Your task to perform on an android device: turn on the 12-hour format for clock Image 0: 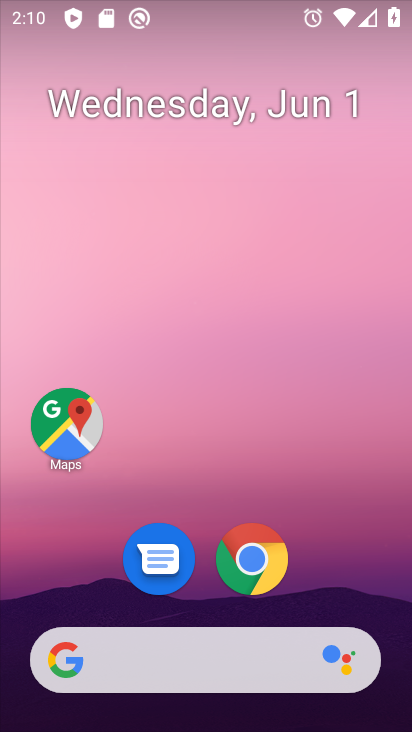
Step 0: press home button
Your task to perform on an android device: turn on the 12-hour format for clock Image 1: 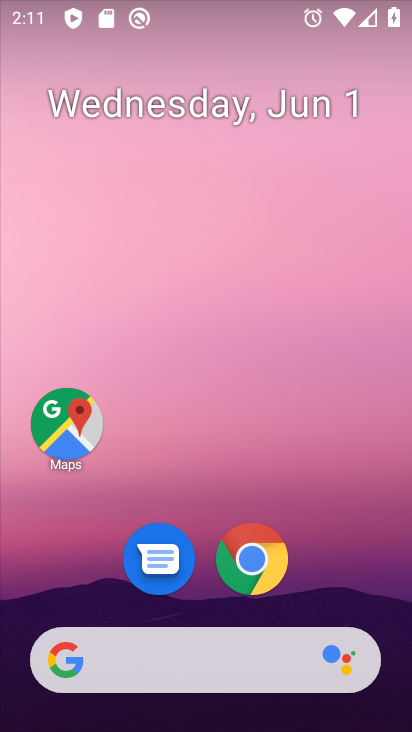
Step 1: drag from (332, 597) to (319, 232)
Your task to perform on an android device: turn on the 12-hour format for clock Image 2: 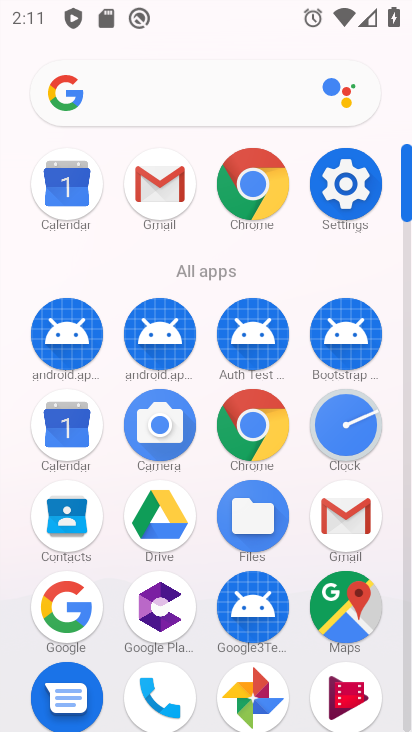
Step 2: click (349, 184)
Your task to perform on an android device: turn on the 12-hour format for clock Image 3: 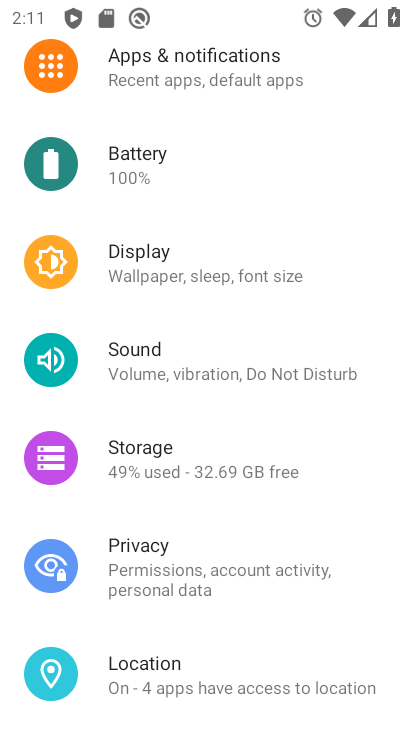
Step 3: drag from (291, 607) to (266, 152)
Your task to perform on an android device: turn on the 12-hour format for clock Image 4: 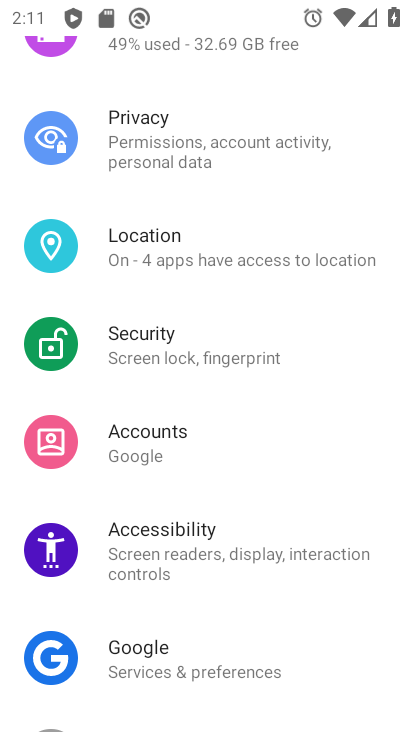
Step 4: drag from (288, 608) to (294, 214)
Your task to perform on an android device: turn on the 12-hour format for clock Image 5: 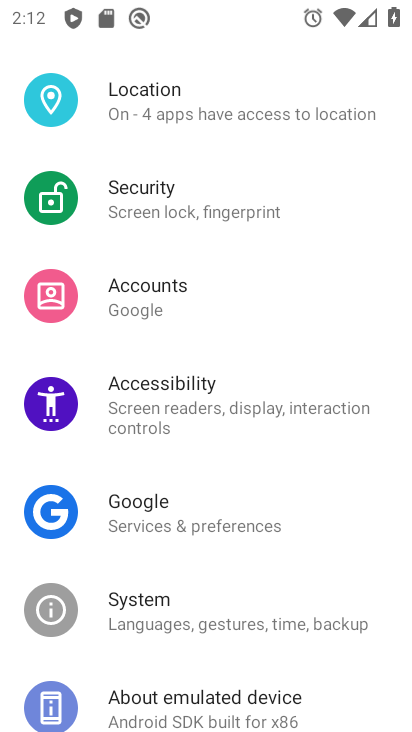
Step 5: click (178, 621)
Your task to perform on an android device: turn on the 12-hour format for clock Image 6: 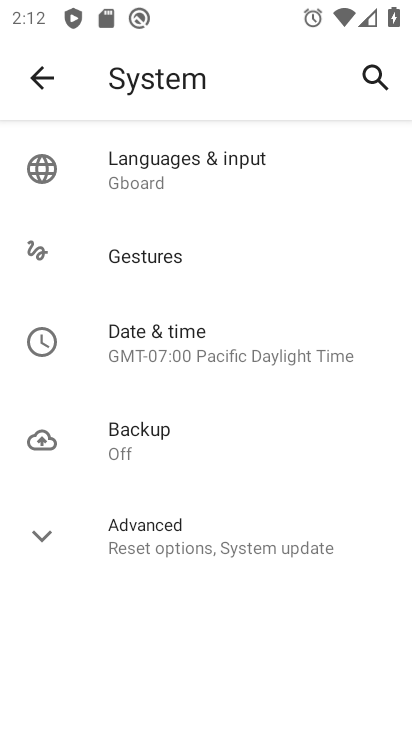
Step 6: click (161, 355)
Your task to perform on an android device: turn on the 12-hour format for clock Image 7: 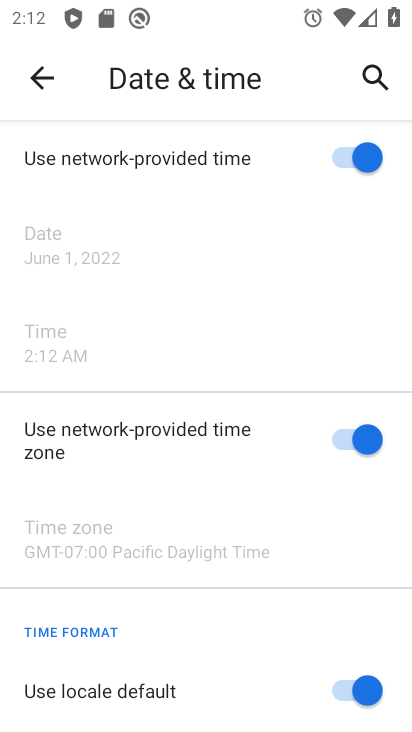
Step 7: drag from (275, 534) to (285, 232)
Your task to perform on an android device: turn on the 12-hour format for clock Image 8: 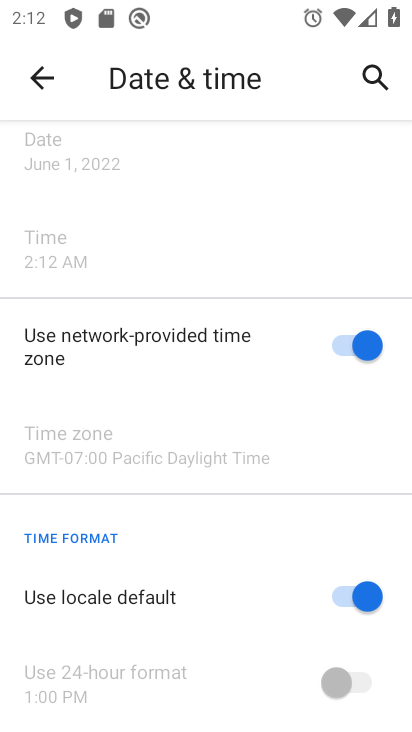
Step 8: click (349, 684)
Your task to perform on an android device: turn on the 12-hour format for clock Image 9: 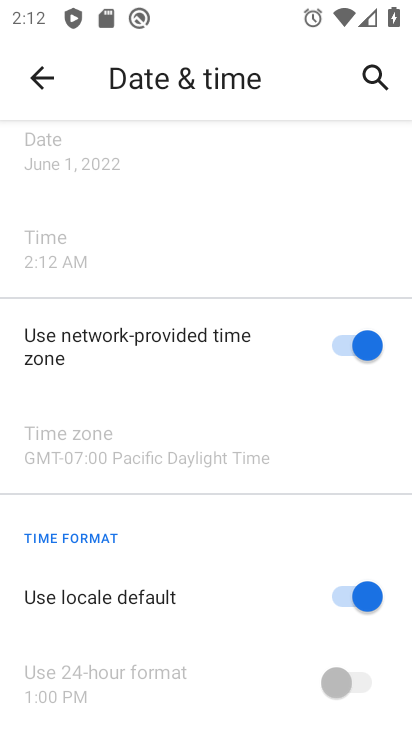
Step 9: click (367, 599)
Your task to perform on an android device: turn on the 12-hour format for clock Image 10: 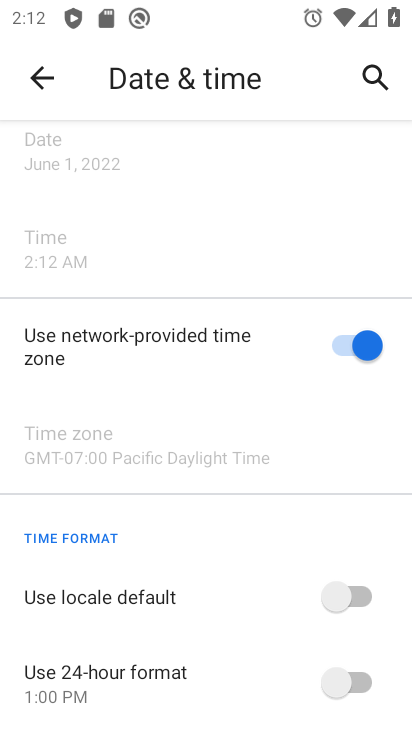
Step 10: task complete